Your task to perform on an android device: Go to network settings Image 0: 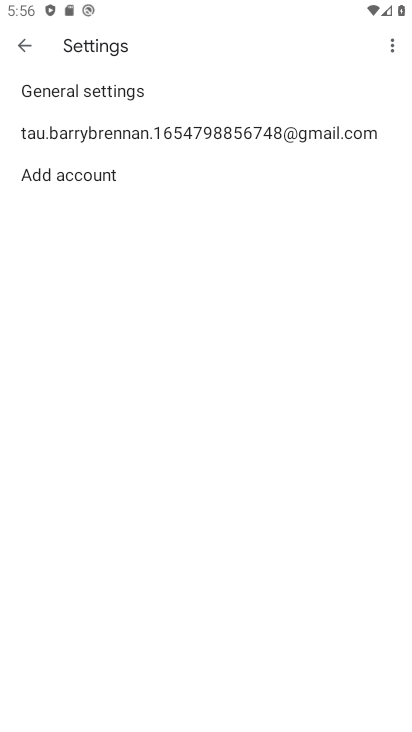
Step 0: press home button
Your task to perform on an android device: Go to network settings Image 1: 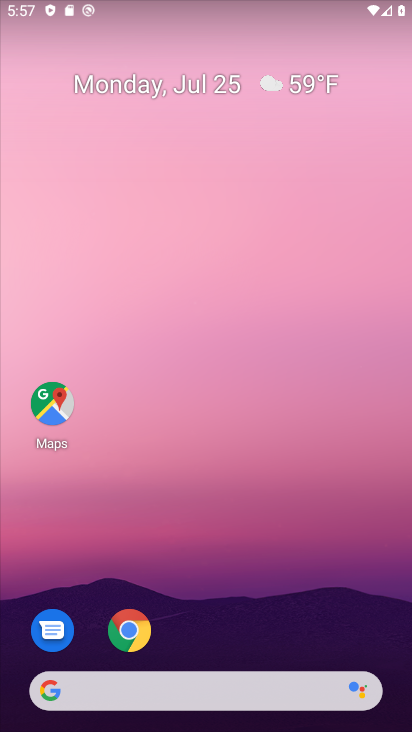
Step 1: drag from (206, 635) to (181, 176)
Your task to perform on an android device: Go to network settings Image 2: 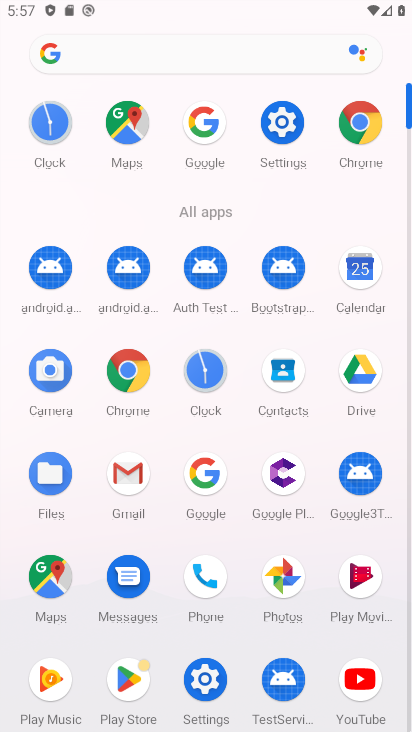
Step 2: click (266, 120)
Your task to perform on an android device: Go to network settings Image 3: 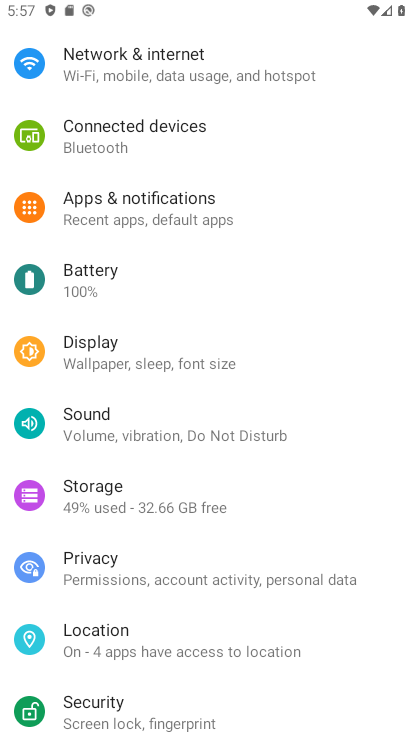
Step 3: drag from (183, 318) to (183, 383)
Your task to perform on an android device: Go to network settings Image 4: 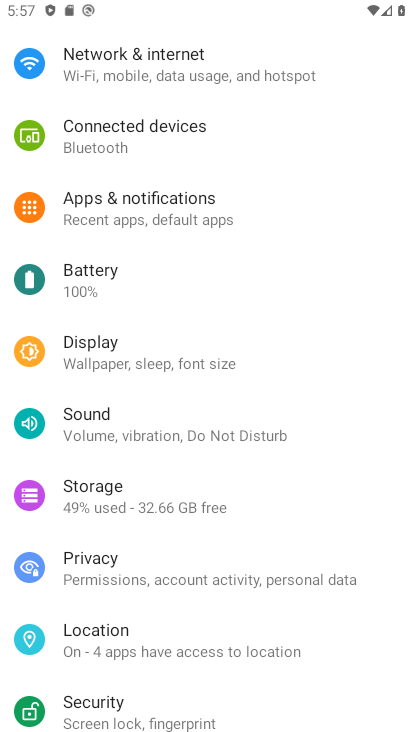
Step 4: click (178, 80)
Your task to perform on an android device: Go to network settings Image 5: 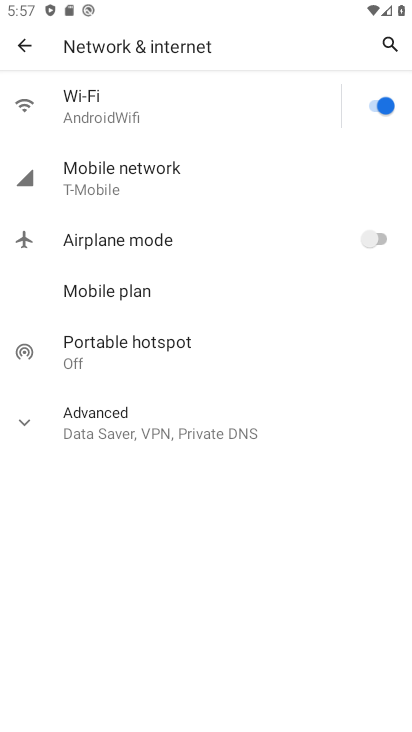
Step 5: task complete